Your task to perform on an android device: toggle priority inbox in the gmail app Image 0: 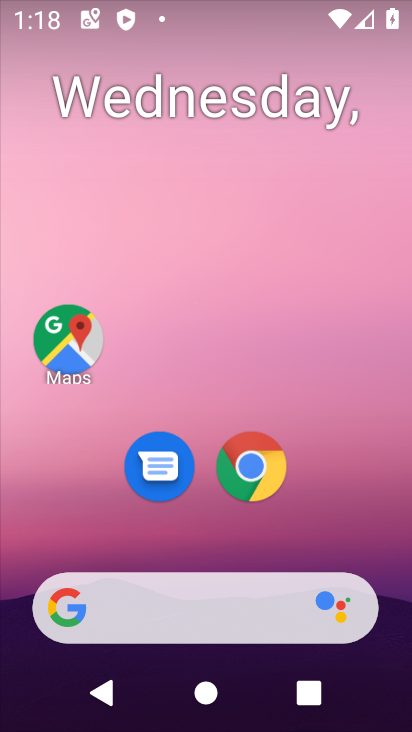
Step 0: press home button
Your task to perform on an android device: toggle priority inbox in the gmail app Image 1: 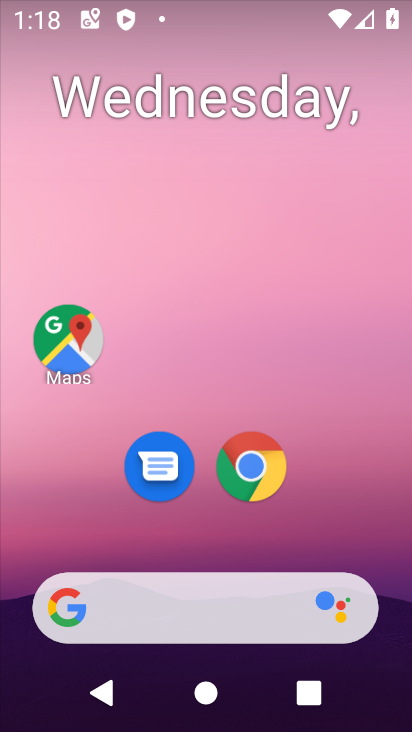
Step 1: drag from (375, 527) to (359, 104)
Your task to perform on an android device: toggle priority inbox in the gmail app Image 2: 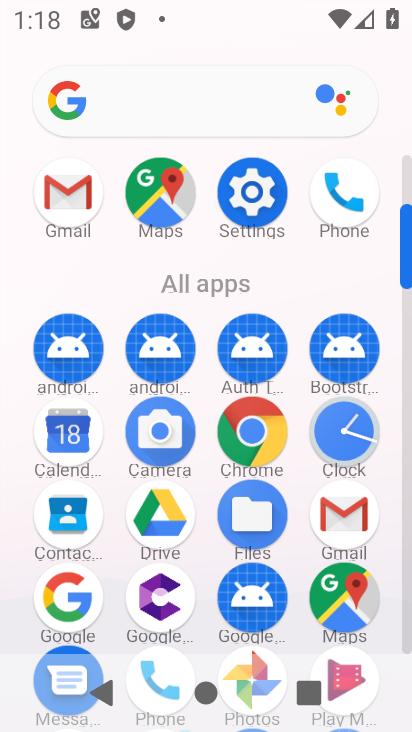
Step 2: click (407, 508)
Your task to perform on an android device: toggle priority inbox in the gmail app Image 3: 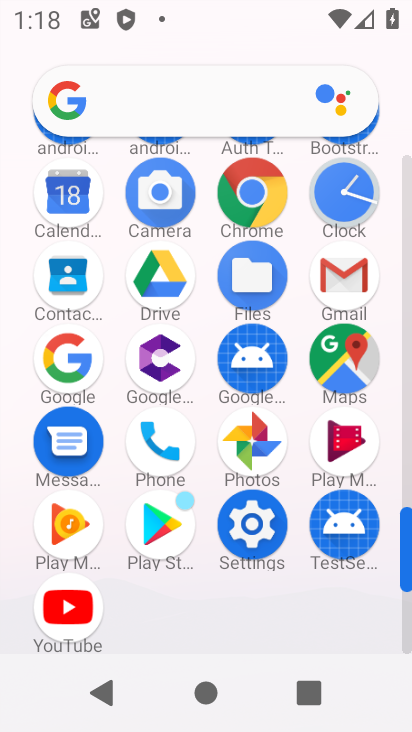
Step 3: drag from (407, 508) to (405, 542)
Your task to perform on an android device: toggle priority inbox in the gmail app Image 4: 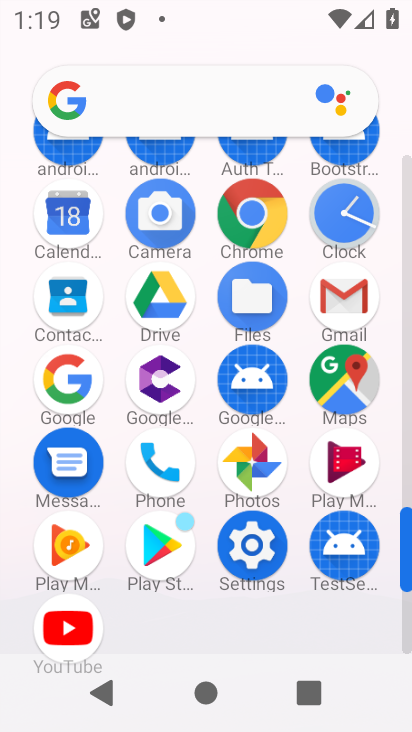
Step 4: click (350, 283)
Your task to perform on an android device: toggle priority inbox in the gmail app Image 5: 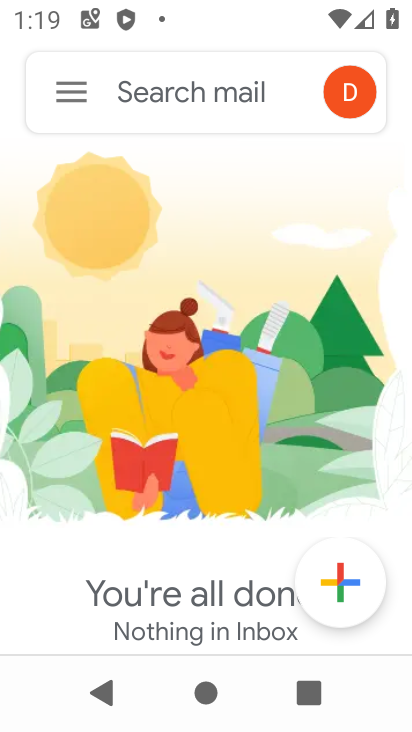
Step 5: click (100, 111)
Your task to perform on an android device: toggle priority inbox in the gmail app Image 6: 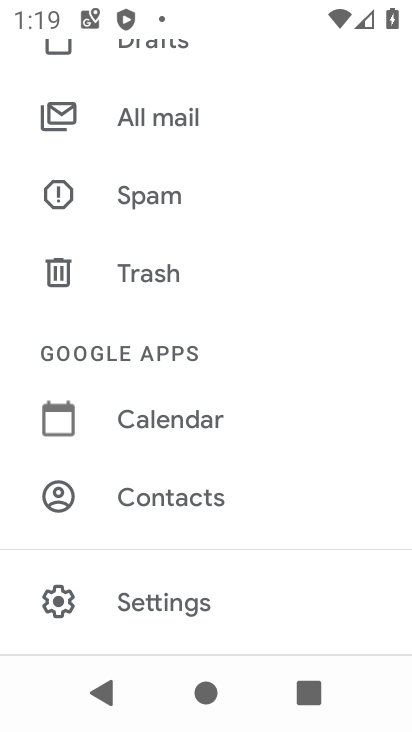
Step 6: click (196, 589)
Your task to perform on an android device: toggle priority inbox in the gmail app Image 7: 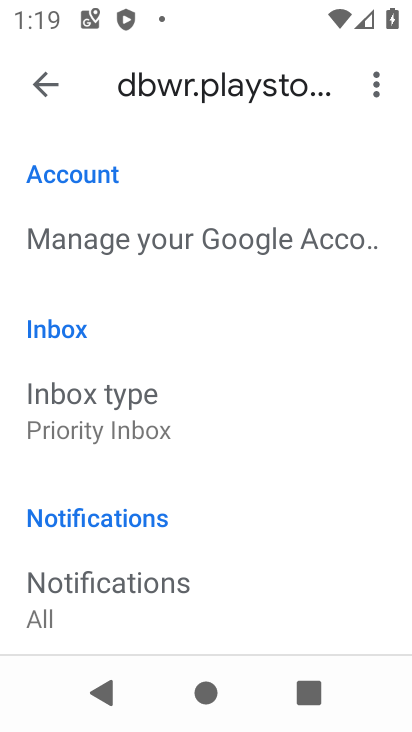
Step 7: click (149, 412)
Your task to perform on an android device: toggle priority inbox in the gmail app Image 8: 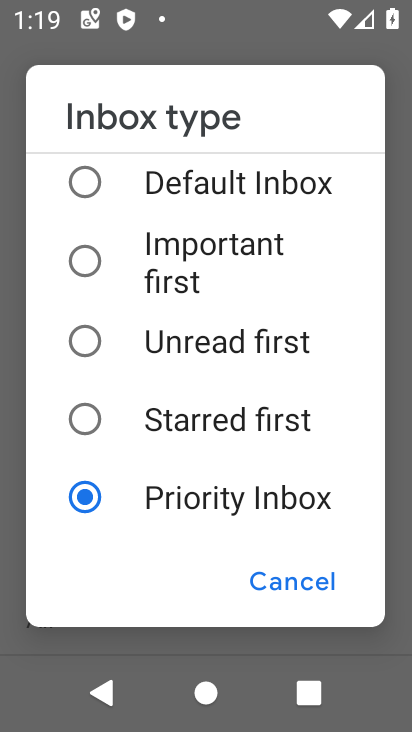
Step 8: click (147, 191)
Your task to perform on an android device: toggle priority inbox in the gmail app Image 9: 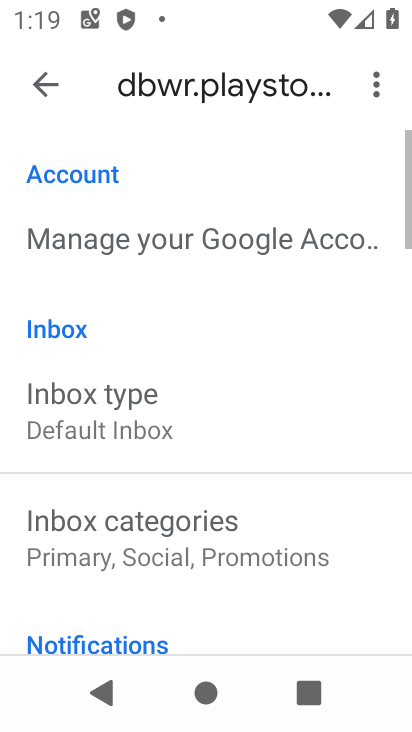
Step 9: task complete